Your task to perform on an android device: delete a single message in the gmail app Image 0: 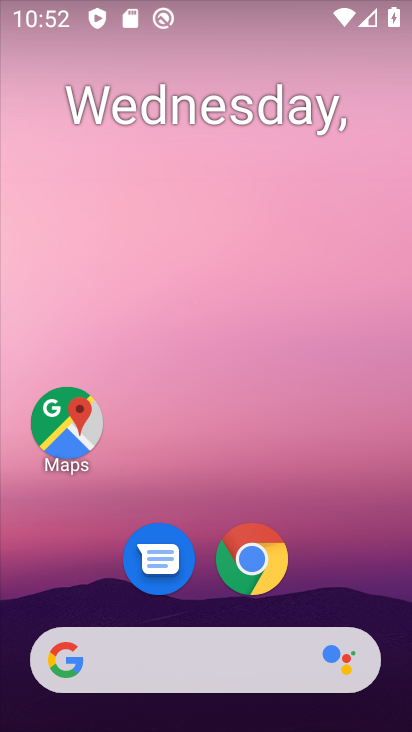
Step 0: drag from (381, 605) to (302, 64)
Your task to perform on an android device: delete a single message in the gmail app Image 1: 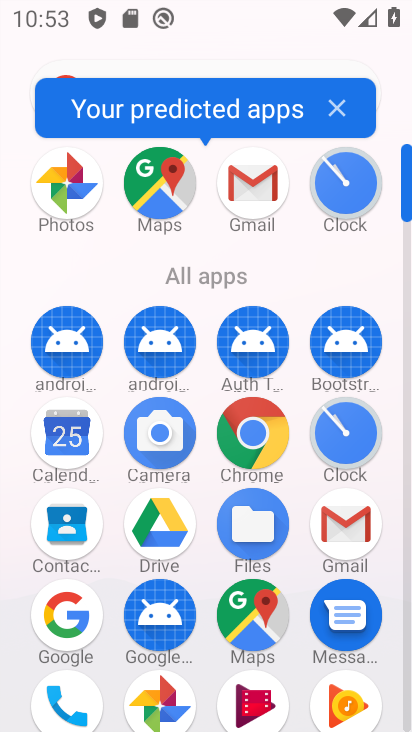
Step 1: click (408, 688)
Your task to perform on an android device: delete a single message in the gmail app Image 2: 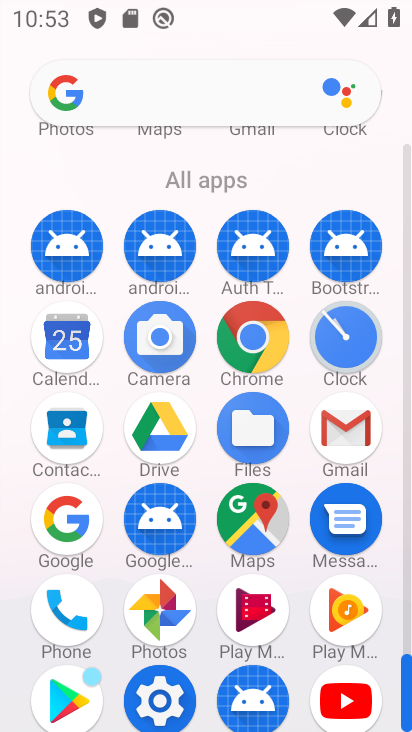
Step 2: click (362, 428)
Your task to perform on an android device: delete a single message in the gmail app Image 3: 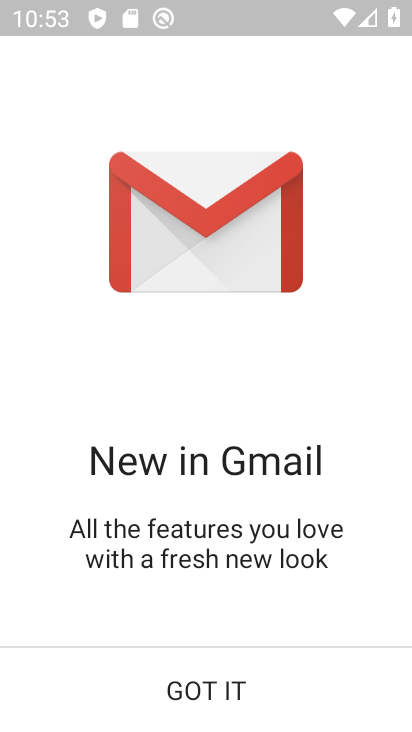
Step 3: click (217, 683)
Your task to perform on an android device: delete a single message in the gmail app Image 4: 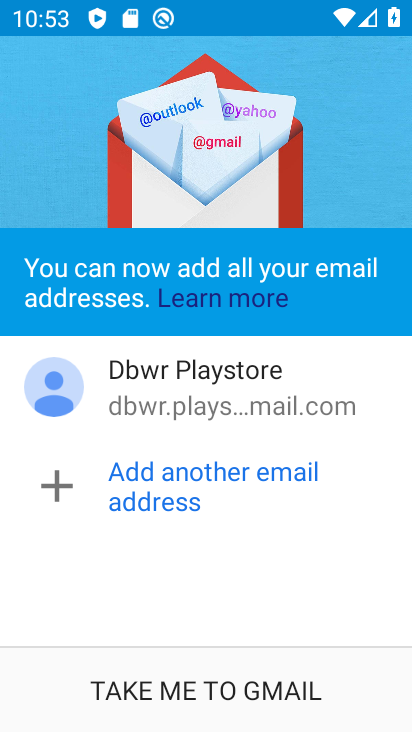
Step 4: click (217, 683)
Your task to perform on an android device: delete a single message in the gmail app Image 5: 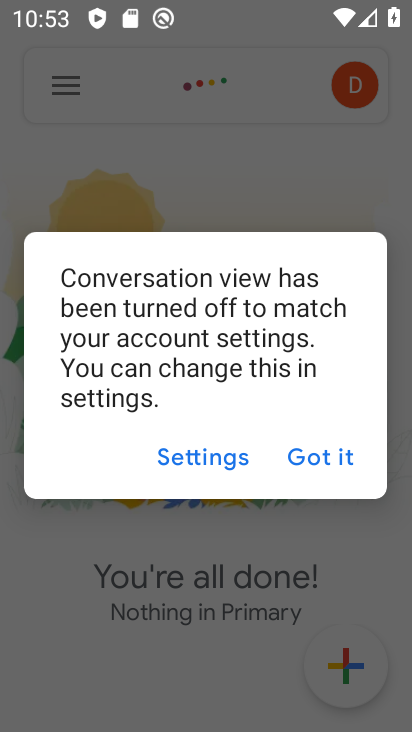
Step 5: click (333, 474)
Your task to perform on an android device: delete a single message in the gmail app Image 6: 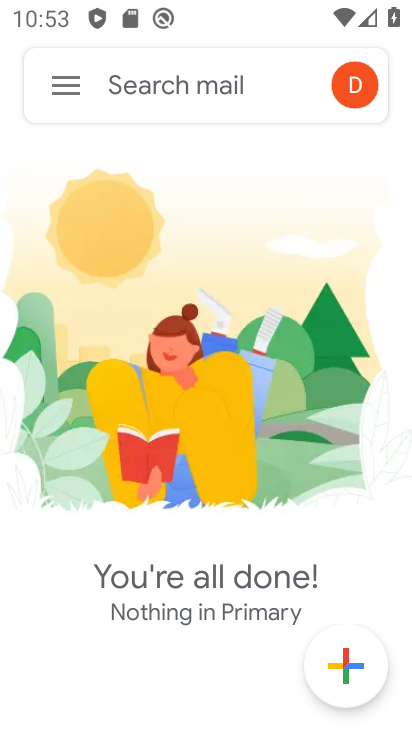
Step 6: click (66, 84)
Your task to perform on an android device: delete a single message in the gmail app Image 7: 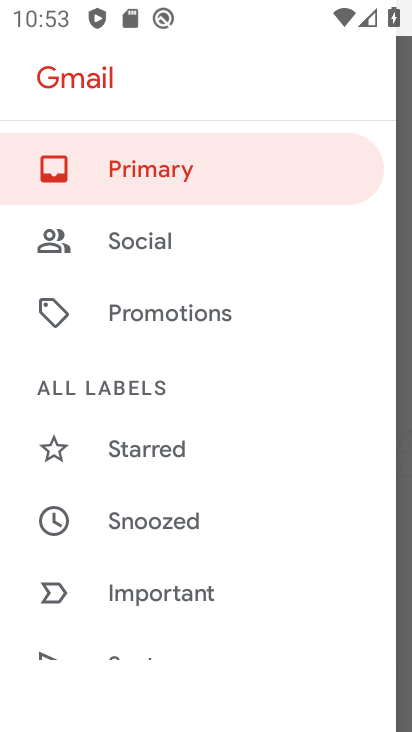
Step 7: drag from (147, 628) to (147, 300)
Your task to perform on an android device: delete a single message in the gmail app Image 8: 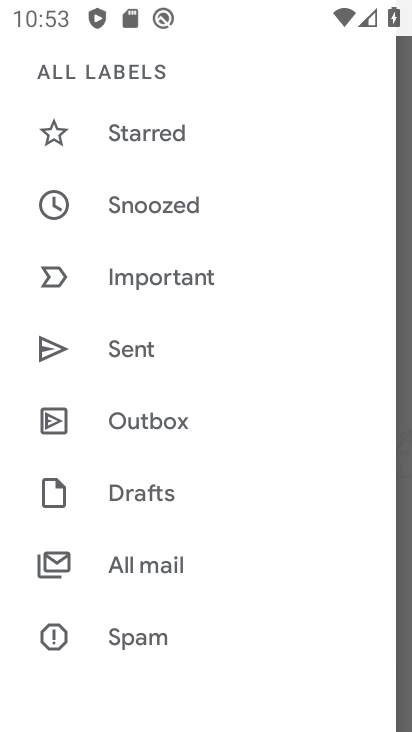
Step 8: click (160, 559)
Your task to perform on an android device: delete a single message in the gmail app Image 9: 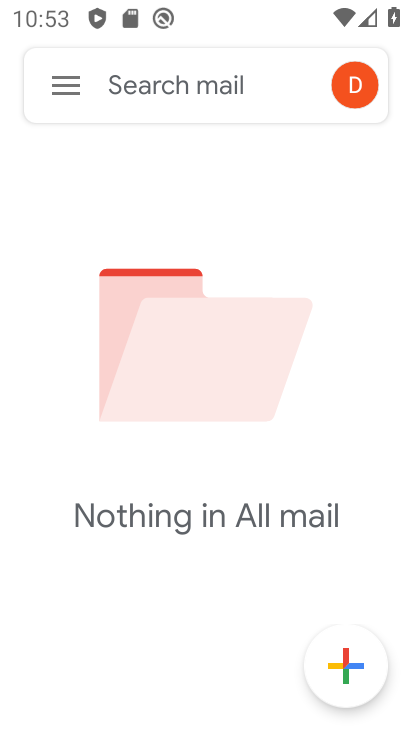
Step 9: task complete